Your task to perform on an android device: check android version Image 0: 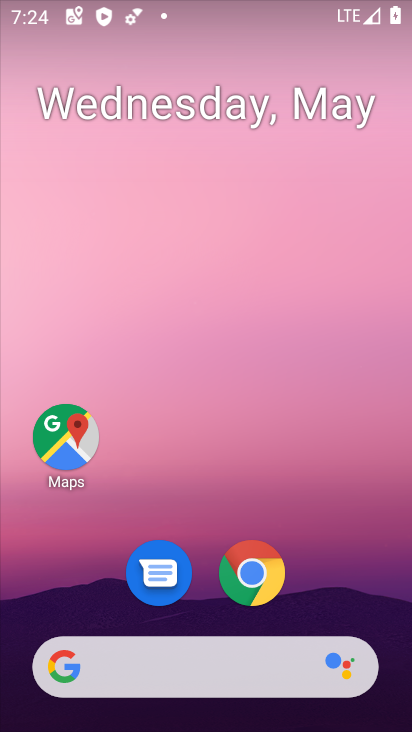
Step 0: drag from (313, 604) to (256, 276)
Your task to perform on an android device: check android version Image 1: 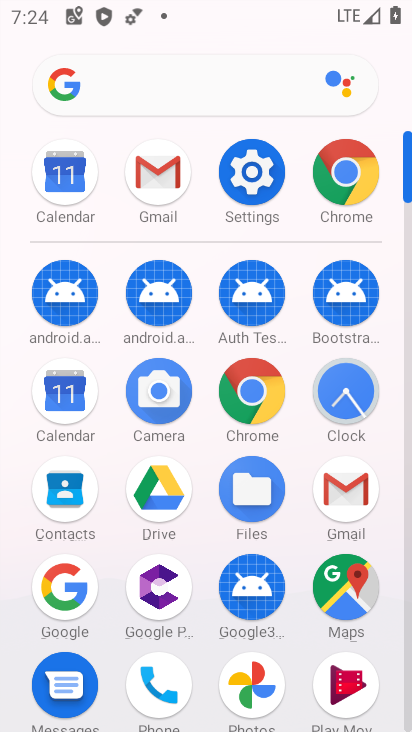
Step 1: drag from (200, 703) to (213, 330)
Your task to perform on an android device: check android version Image 2: 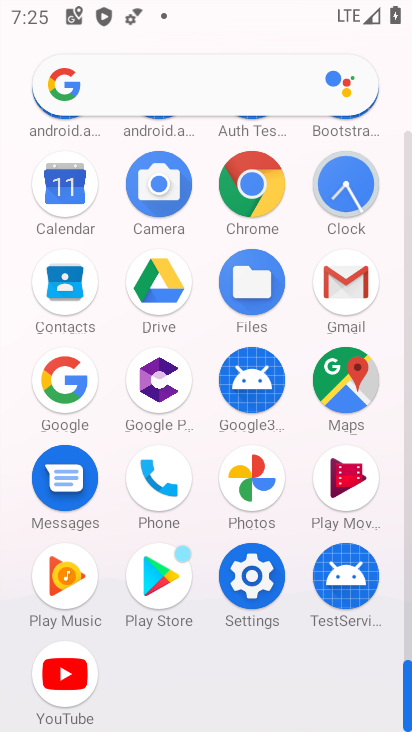
Step 2: click (251, 587)
Your task to perform on an android device: check android version Image 3: 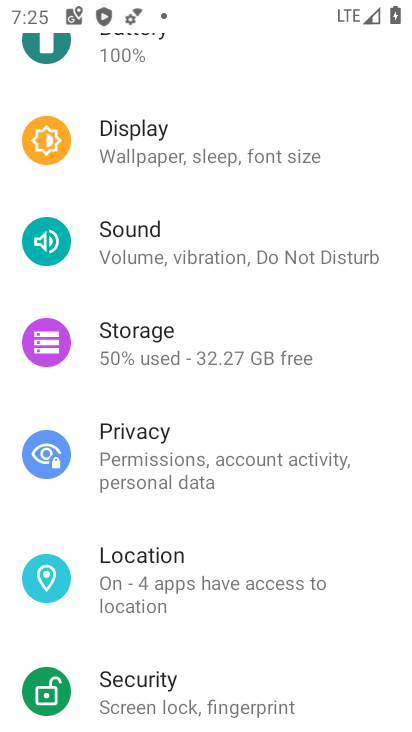
Step 3: drag from (215, 678) to (218, 318)
Your task to perform on an android device: check android version Image 4: 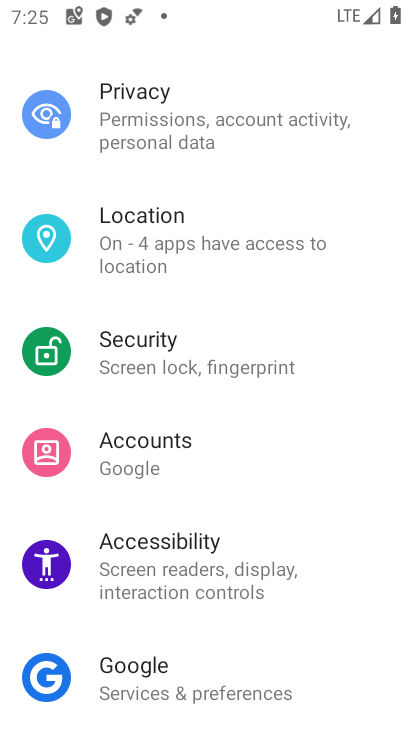
Step 4: drag from (190, 648) to (272, 306)
Your task to perform on an android device: check android version Image 5: 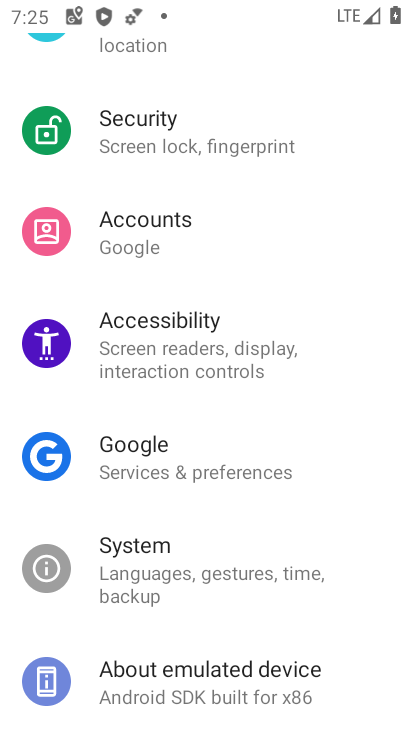
Step 5: click (197, 681)
Your task to perform on an android device: check android version Image 6: 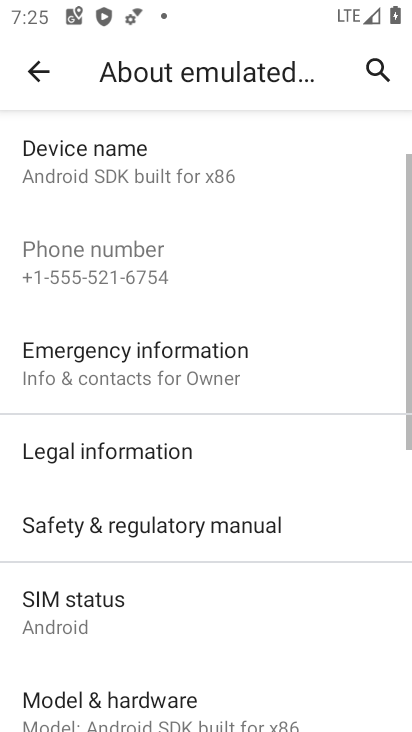
Step 6: drag from (138, 642) to (205, 335)
Your task to perform on an android device: check android version Image 7: 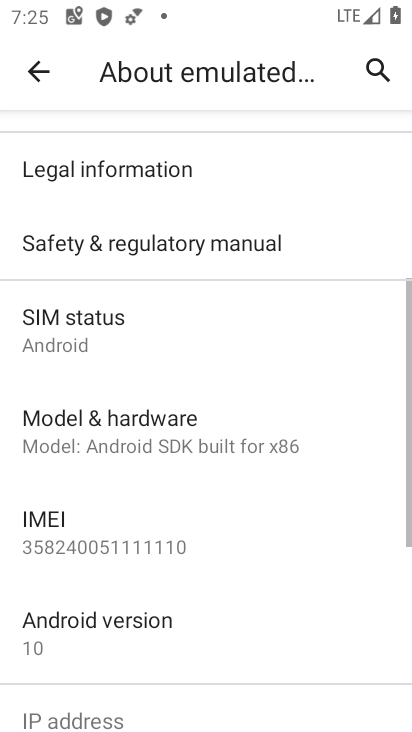
Step 7: click (109, 631)
Your task to perform on an android device: check android version Image 8: 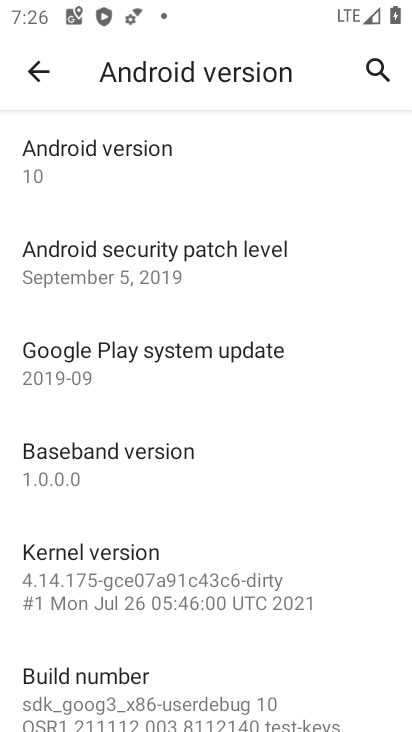
Step 8: task complete